Your task to perform on an android device: turn on javascript in the chrome app Image 0: 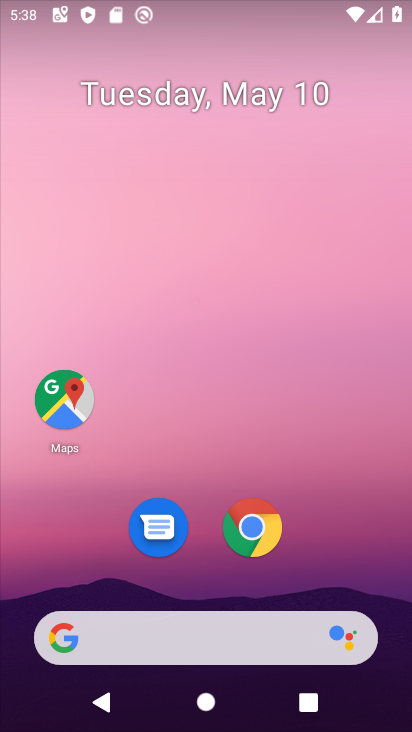
Step 0: click (251, 547)
Your task to perform on an android device: turn on javascript in the chrome app Image 1: 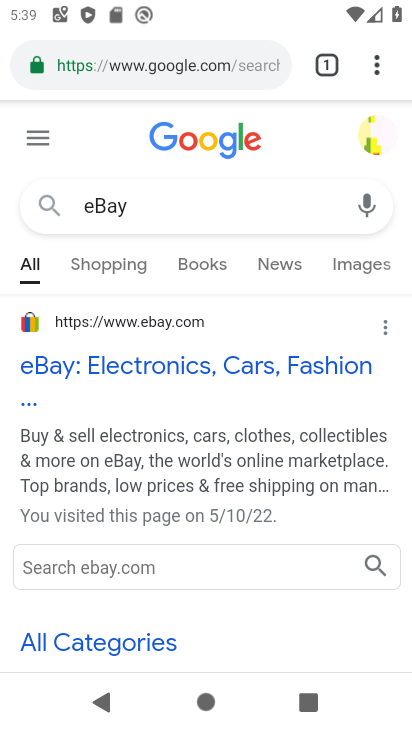
Step 1: click (381, 52)
Your task to perform on an android device: turn on javascript in the chrome app Image 2: 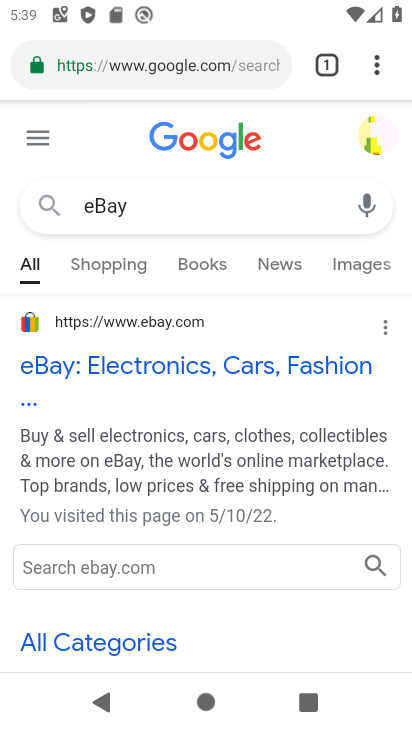
Step 2: click (375, 63)
Your task to perform on an android device: turn on javascript in the chrome app Image 3: 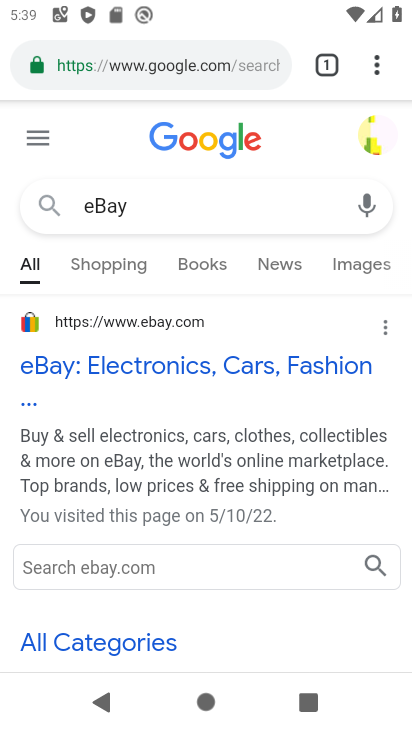
Step 3: click (369, 76)
Your task to perform on an android device: turn on javascript in the chrome app Image 4: 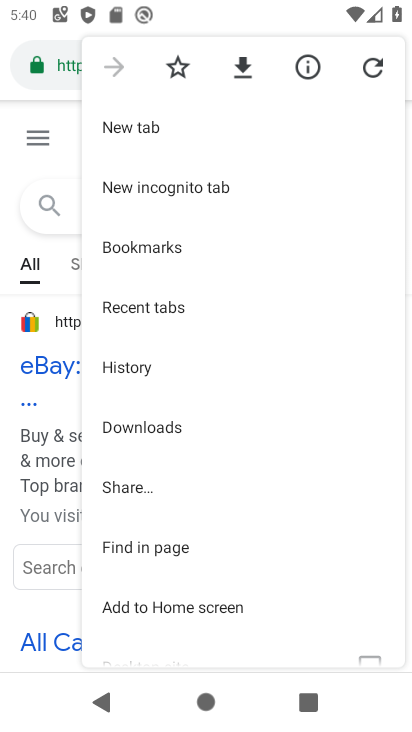
Step 4: drag from (120, 427) to (255, 58)
Your task to perform on an android device: turn on javascript in the chrome app Image 5: 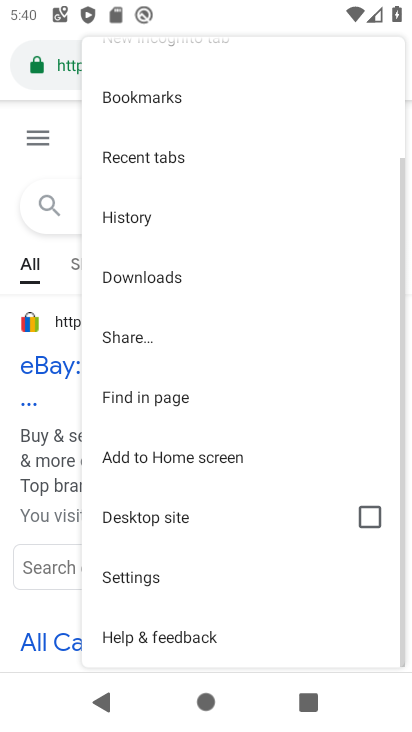
Step 5: click (106, 568)
Your task to perform on an android device: turn on javascript in the chrome app Image 6: 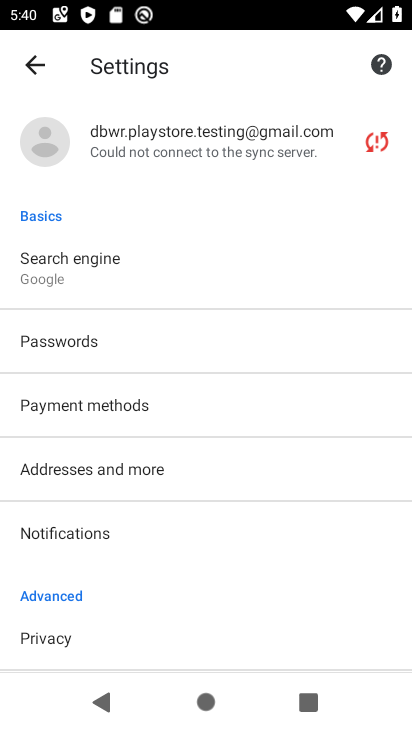
Step 6: drag from (162, 640) to (247, 241)
Your task to perform on an android device: turn on javascript in the chrome app Image 7: 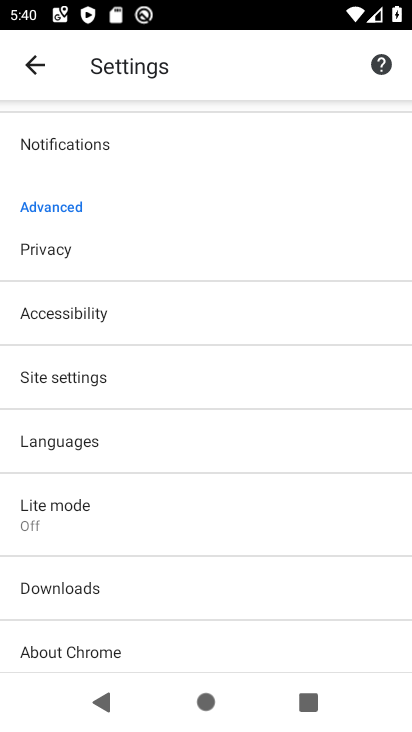
Step 7: click (46, 372)
Your task to perform on an android device: turn on javascript in the chrome app Image 8: 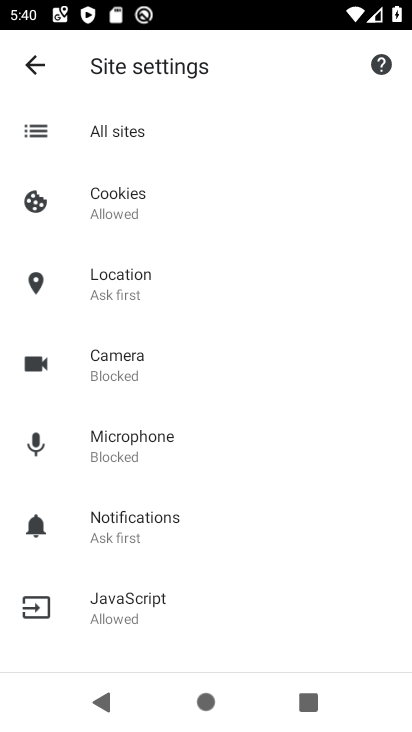
Step 8: click (172, 610)
Your task to perform on an android device: turn on javascript in the chrome app Image 9: 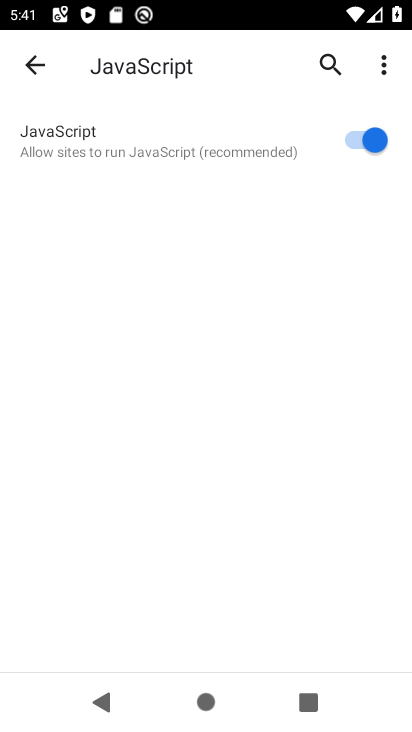
Step 9: task complete